Your task to perform on an android device: turn on the 24-hour format for clock Image 0: 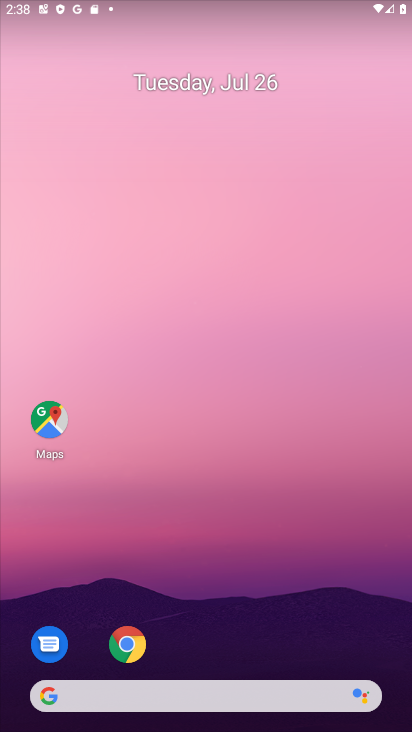
Step 0: click (411, 702)
Your task to perform on an android device: turn on the 24-hour format for clock Image 1: 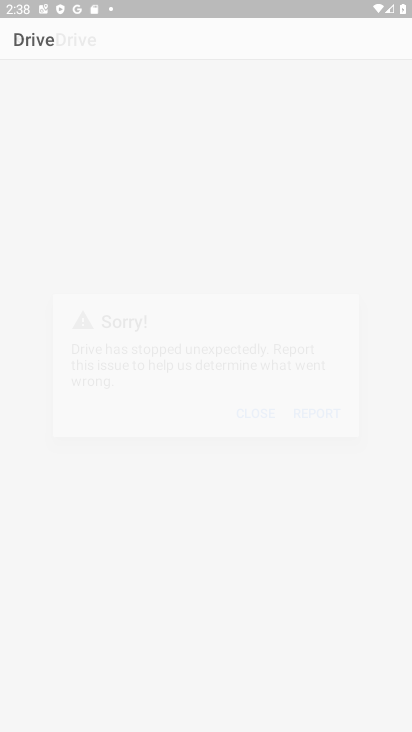
Step 1: drag from (187, 420) to (183, 357)
Your task to perform on an android device: turn on the 24-hour format for clock Image 2: 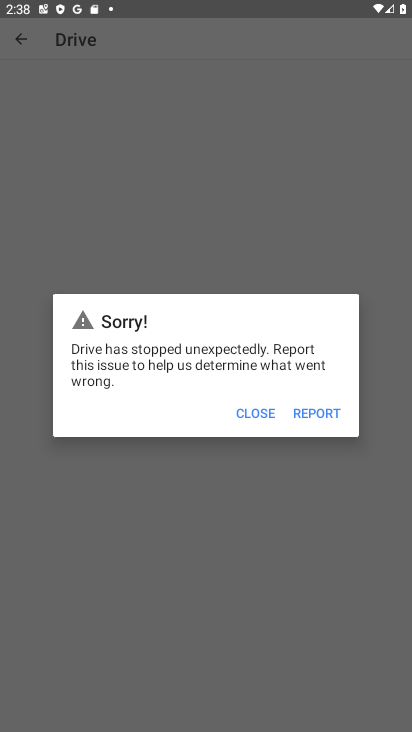
Step 2: press home button
Your task to perform on an android device: turn on the 24-hour format for clock Image 3: 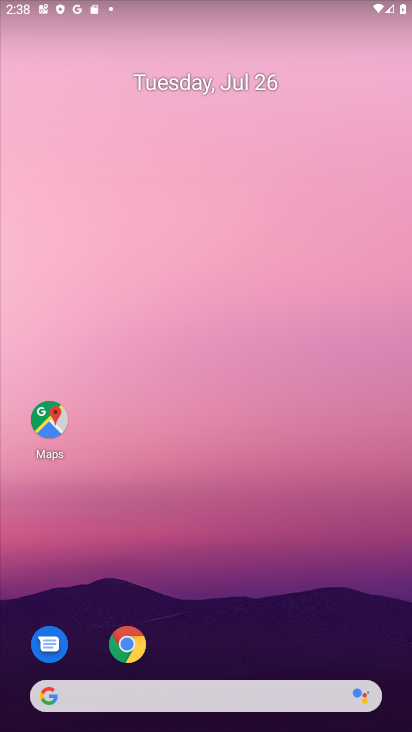
Step 3: drag from (210, 663) to (141, 35)
Your task to perform on an android device: turn on the 24-hour format for clock Image 4: 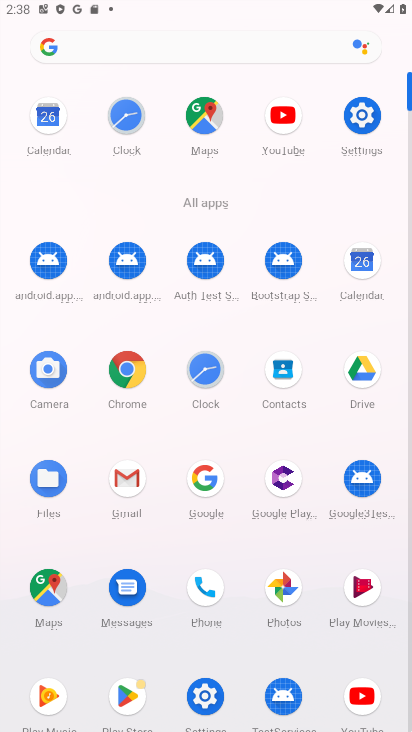
Step 4: click (208, 360)
Your task to perform on an android device: turn on the 24-hour format for clock Image 5: 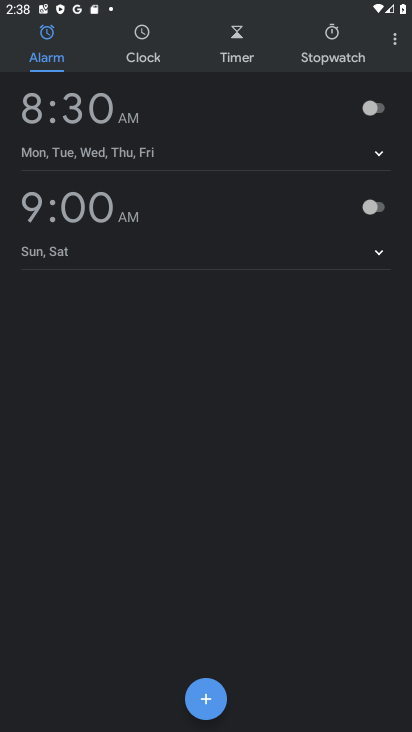
Step 5: click (396, 38)
Your task to perform on an android device: turn on the 24-hour format for clock Image 6: 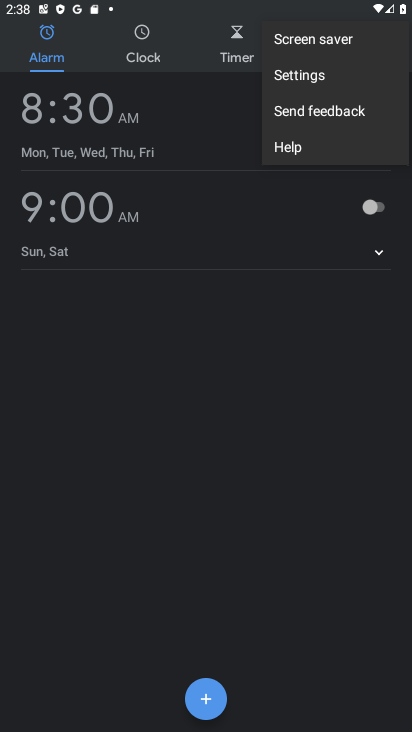
Step 6: click (313, 82)
Your task to perform on an android device: turn on the 24-hour format for clock Image 7: 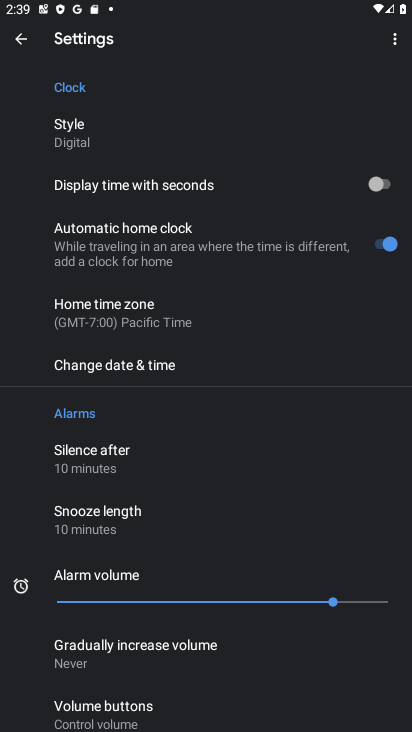
Step 7: click (100, 364)
Your task to perform on an android device: turn on the 24-hour format for clock Image 8: 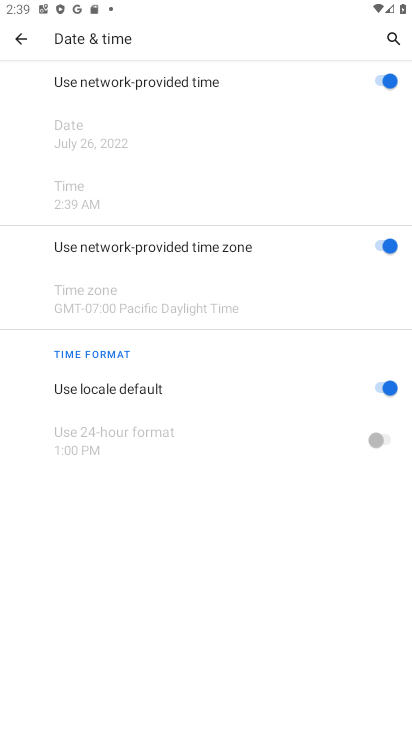
Step 8: click (384, 400)
Your task to perform on an android device: turn on the 24-hour format for clock Image 9: 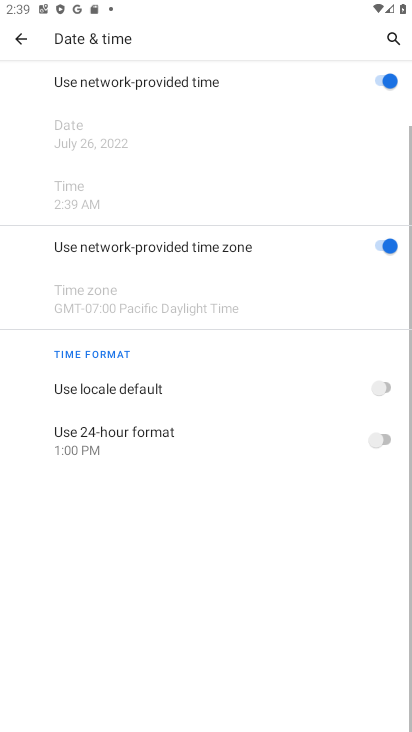
Step 9: click (384, 448)
Your task to perform on an android device: turn on the 24-hour format for clock Image 10: 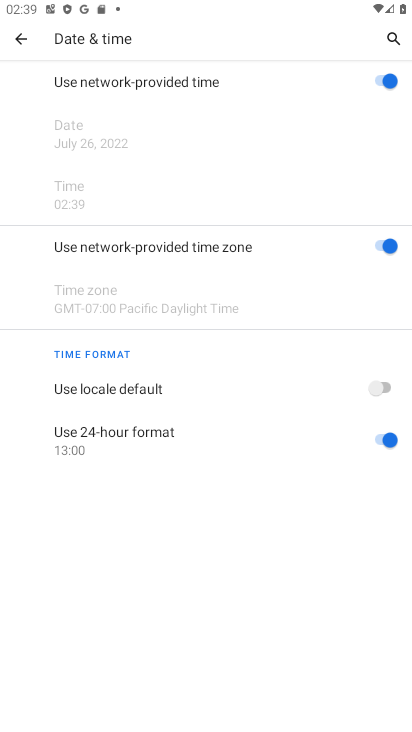
Step 10: task complete